Your task to perform on an android device: Do I have any events tomorrow? Image 0: 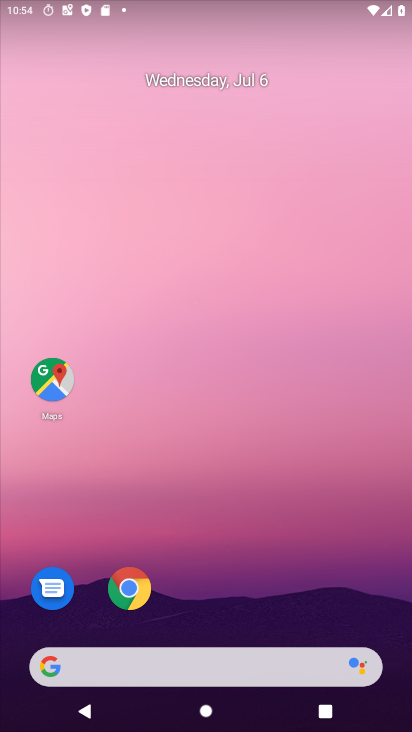
Step 0: drag from (225, 719) to (215, 247)
Your task to perform on an android device: Do I have any events tomorrow? Image 1: 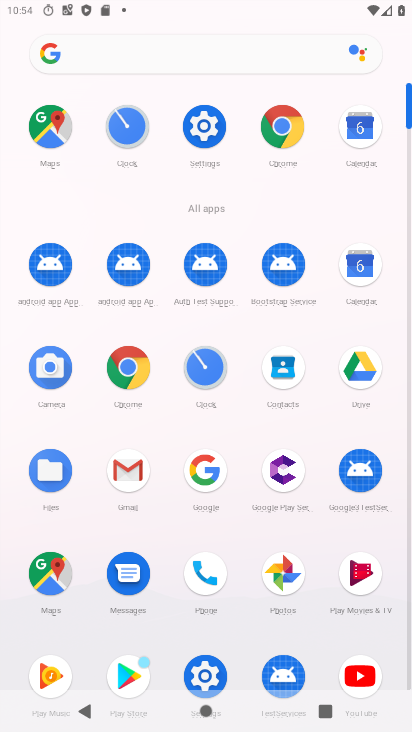
Step 1: click (364, 269)
Your task to perform on an android device: Do I have any events tomorrow? Image 2: 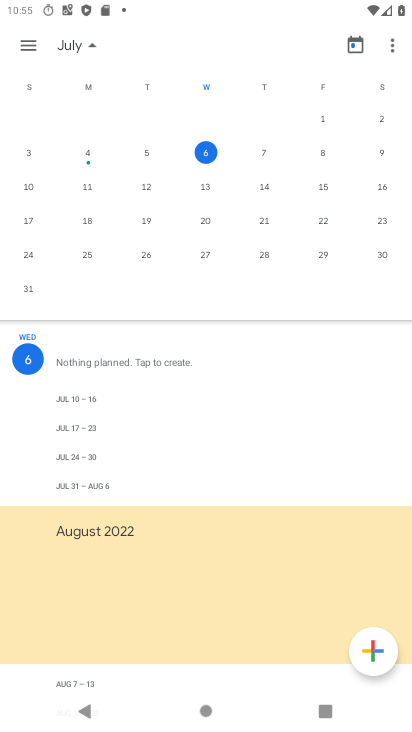
Step 2: click (264, 149)
Your task to perform on an android device: Do I have any events tomorrow? Image 3: 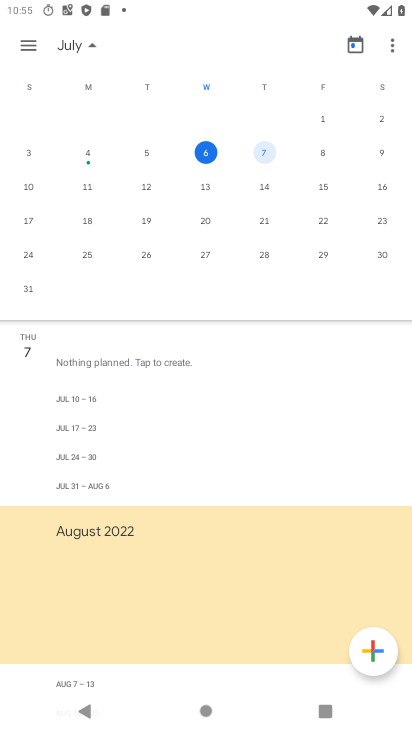
Step 3: click (266, 149)
Your task to perform on an android device: Do I have any events tomorrow? Image 4: 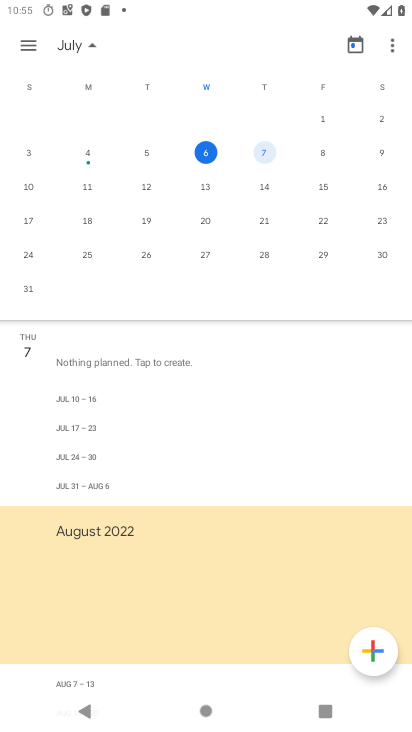
Step 4: click (35, 44)
Your task to perform on an android device: Do I have any events tomorrow? Image 5: 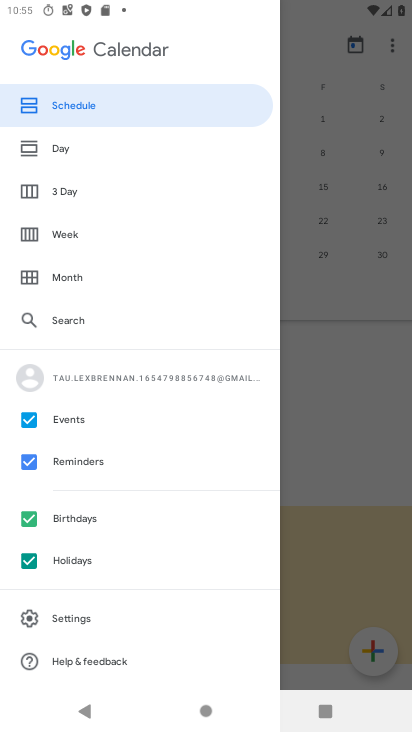
Step 5: click (32, 558)
Your task to perform on an android device: Do I have any events tomorrow? Image 6: 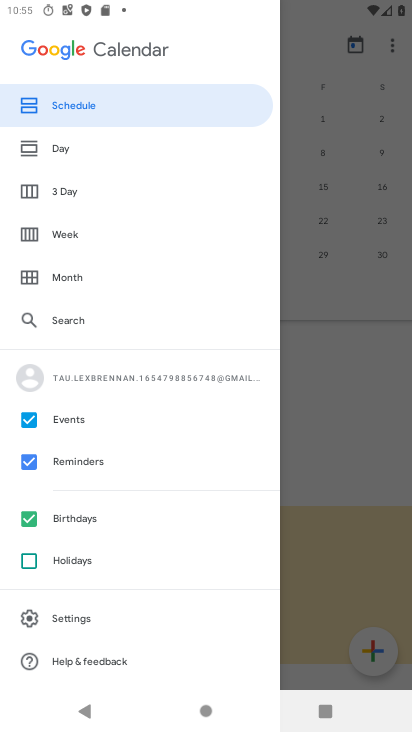
Step 6: click (28, 515)
Your task to perform on an android device: Do I have any events tomorrow? Image 7: 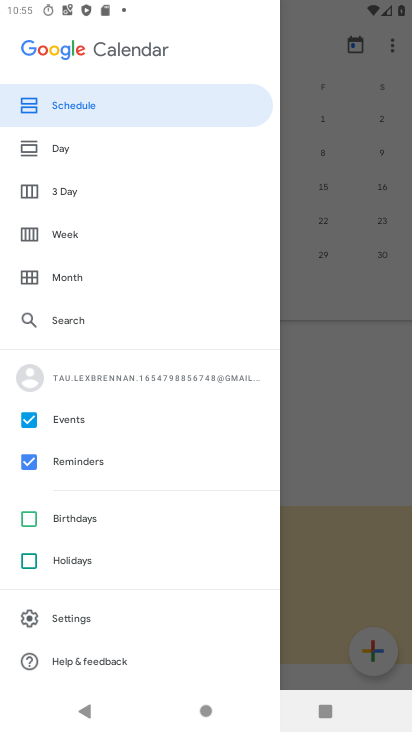
Step 7: click (32, 454)
Your task to perform on an android device: Do I have any events tomorrow? Image 8: 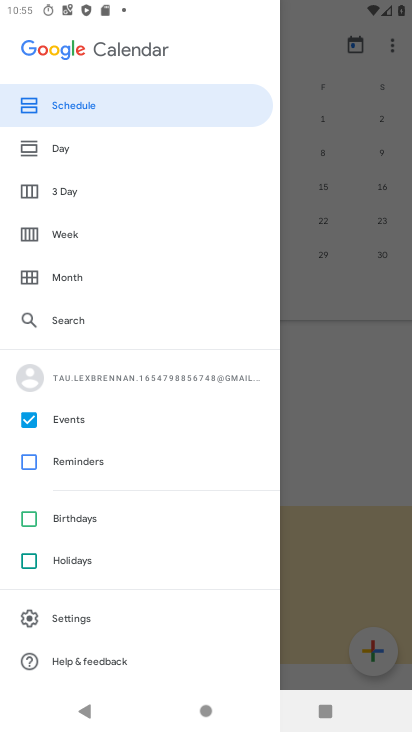
Step 8: click (66, 104)
Your task to perform on an android device: Do I have any events tomorrow? Image 9: 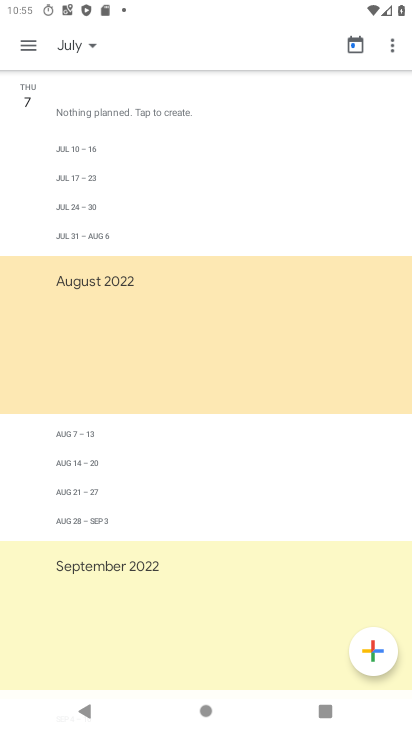
Step 9: task complete